Your task to perform on an android device: Open my contact list Image 0: 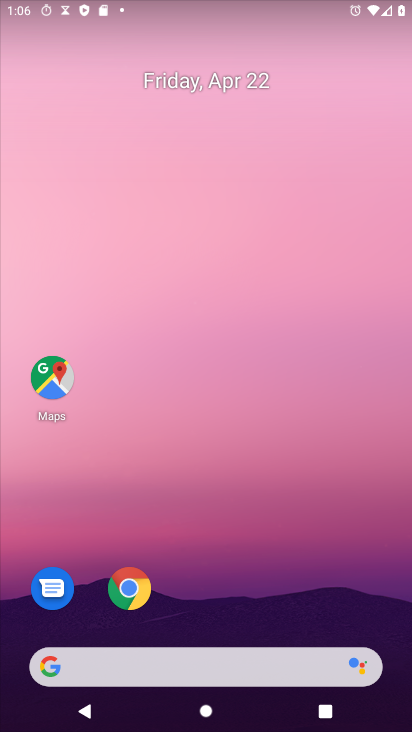
Step 0: drag from (236, 685) to (323, 92)
Your task to perform on an android device: Open my contact list Image 1: 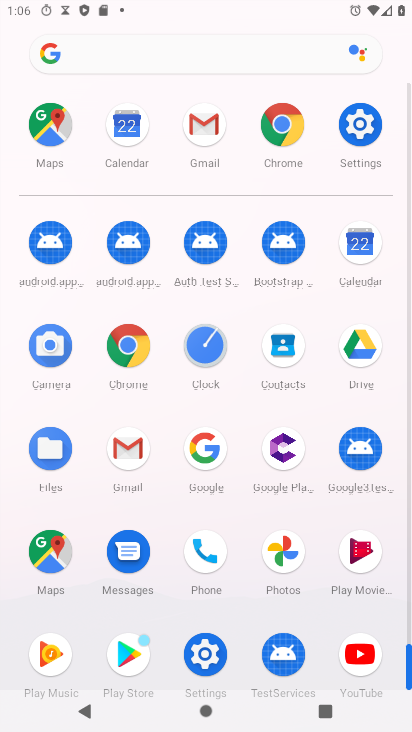
Step 1: click (281, 343)
Your task to perform on an android device: Open my contact list Image 2: 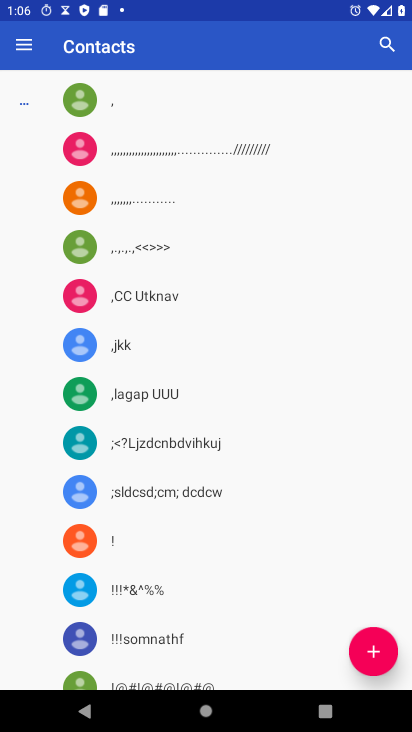
Step 2: task complete